Your task to perform on an android device: Open privacy settings Image 0: 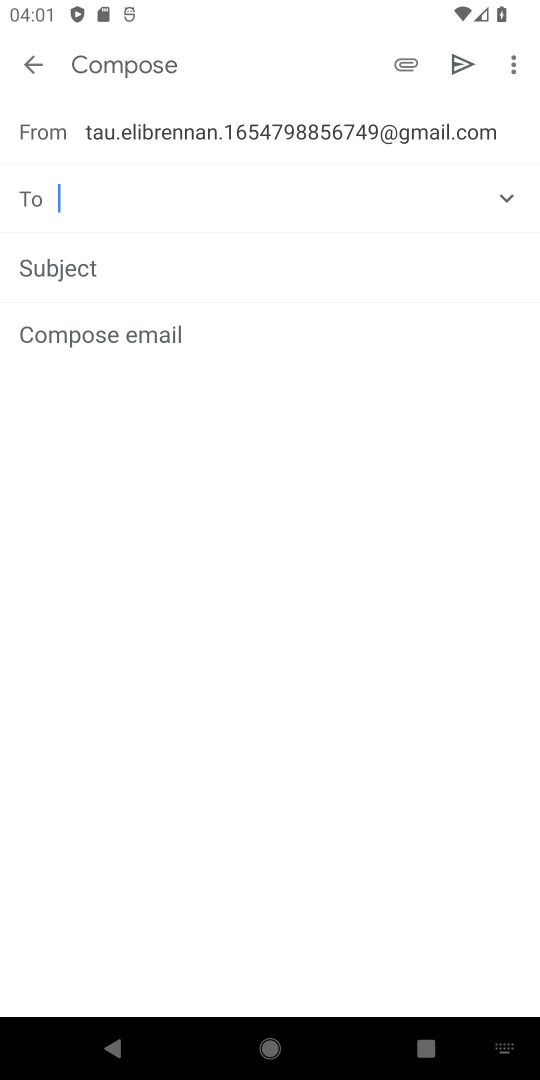
Step 0: press home button
Your task to perform on an android device: Open privacy settings Image 1: 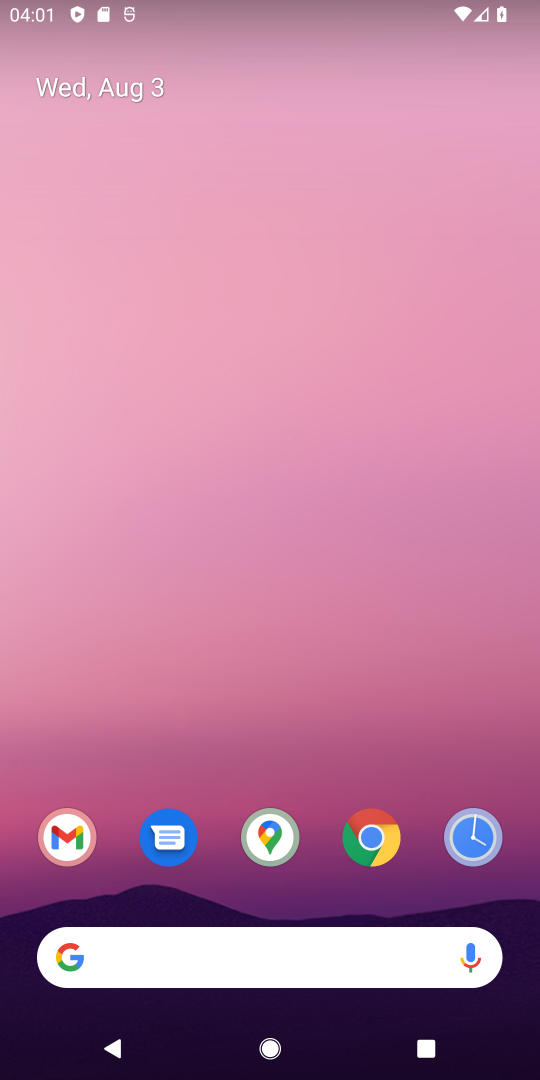
Step 1: drag from (423, 879) to (433, 220)
Your task to perform on an android device: Open privacy settings Image 2: 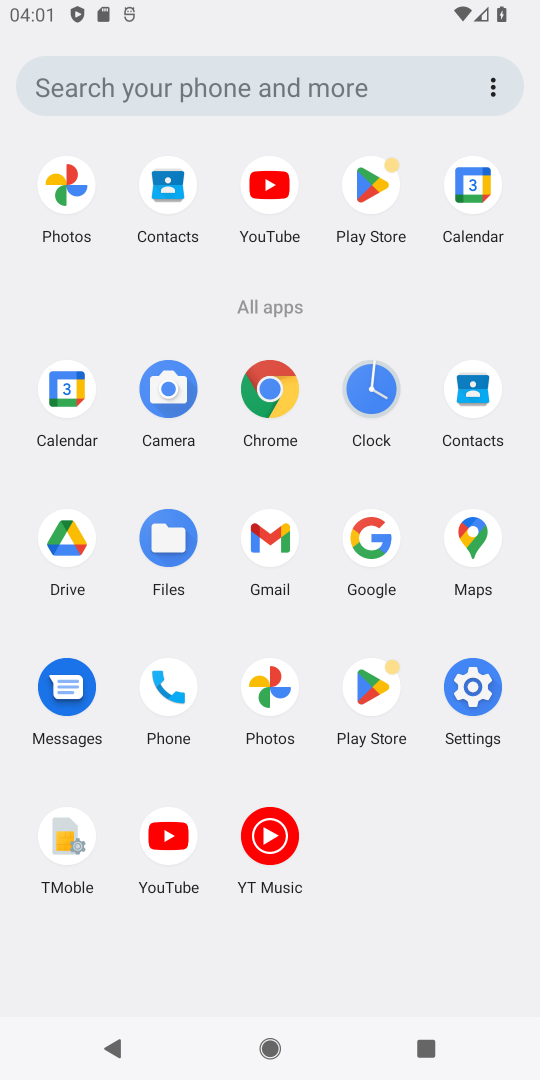
Step 2: click (474, 683)
Your task to perform on an android device: Open privacy settings Image 3: 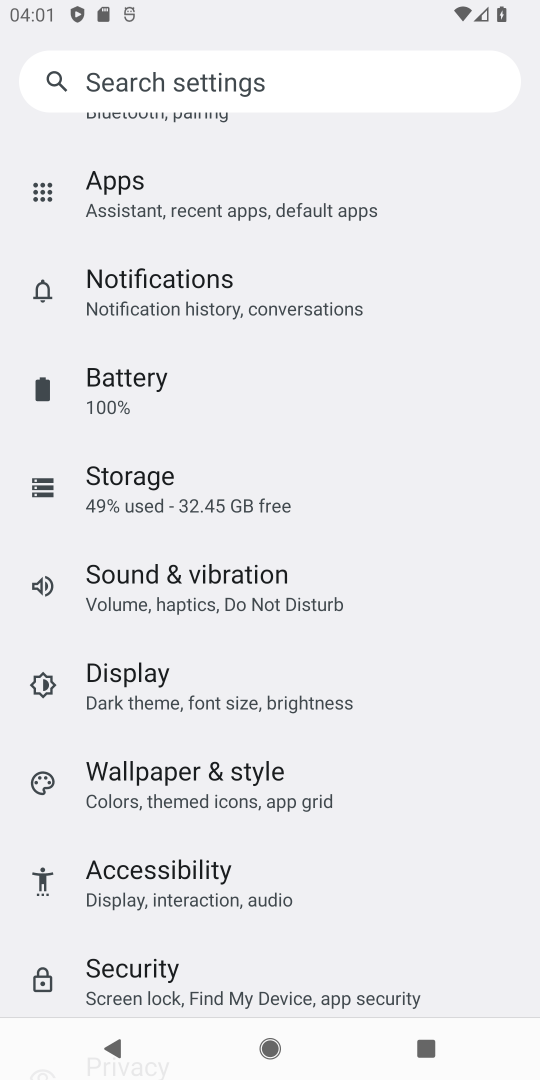
Step 3: drag from (386, 895) to (399, 355)
Your task to perform on an android device: Open privacy settings Image 4: 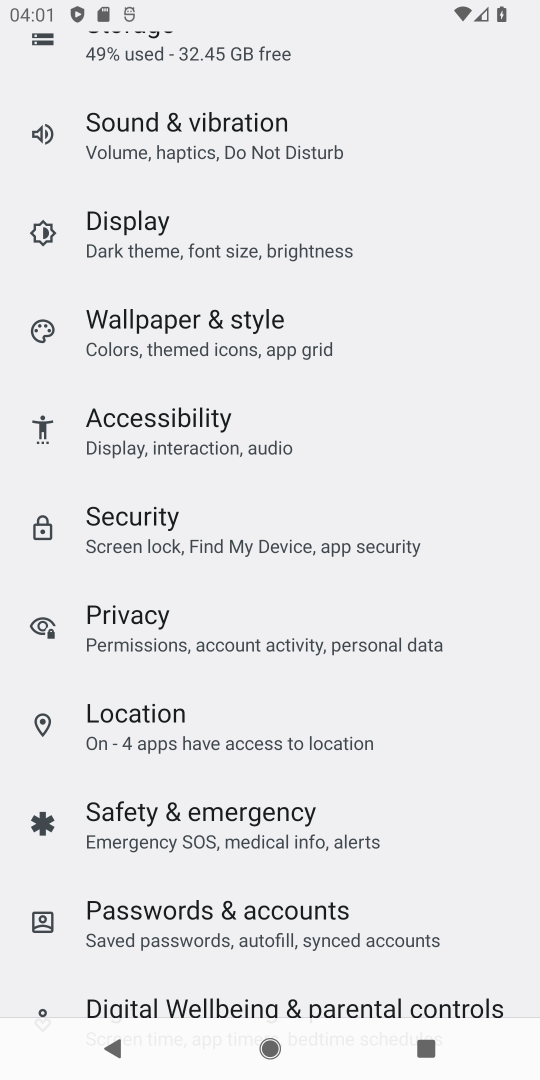
Step 4: click (129, 636)
Your task to perform on an android device: Open privacy settings Image 5: 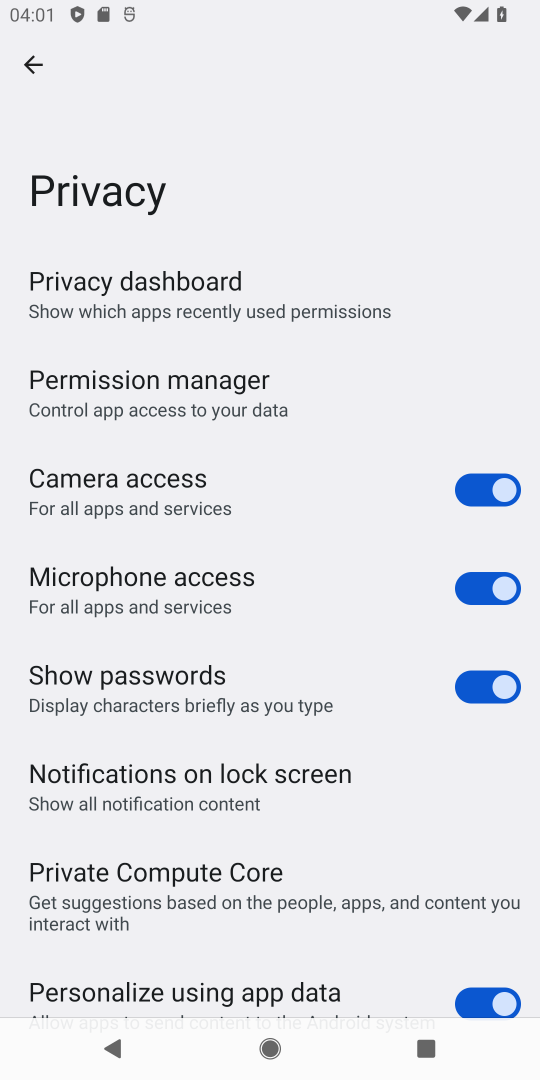
Step 5: task complete